Your task to perform on an android device: Check the weather Image 0: 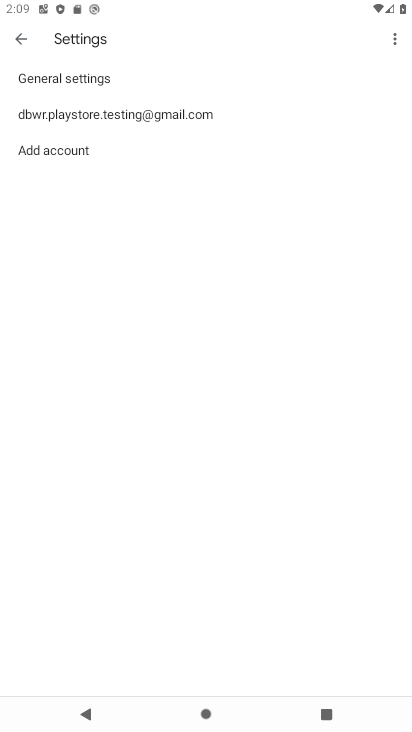
Step 0: press home button
Your task to perform on an android device: Check the weather Image 1: 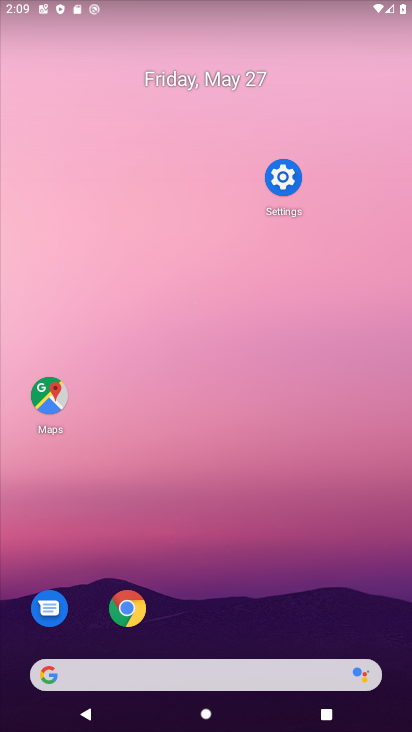
Step 1: click (202, 671)
Your task to perform on an android device: Check the weather Image 2: 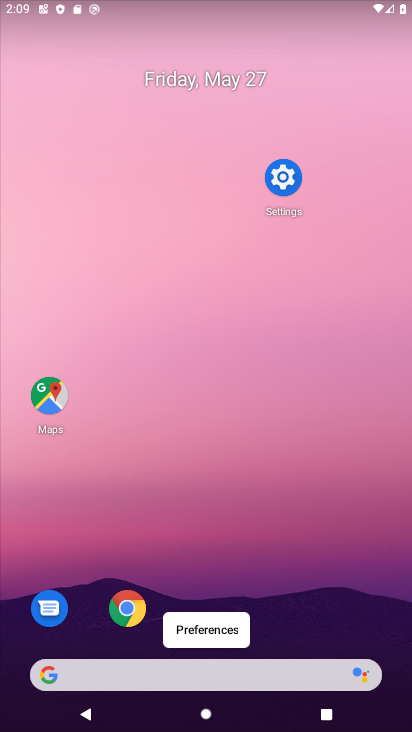
Step 2: click (158, 676)
Your task to perform on an android device: Check the weather Image 3: 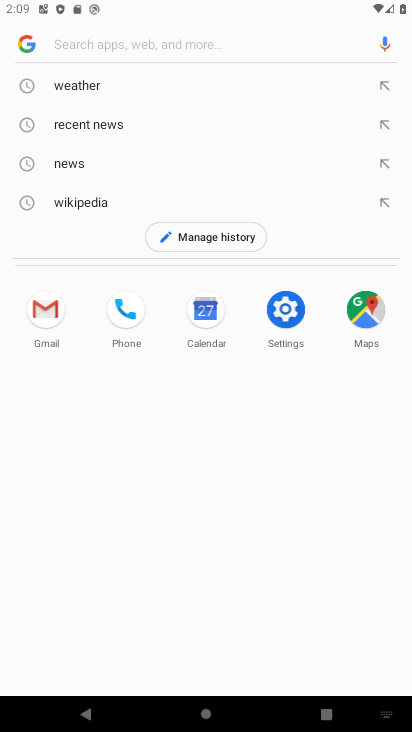
Step 3: click (69, 92)
Your task to perform on an android device: Check the weather Image 4: 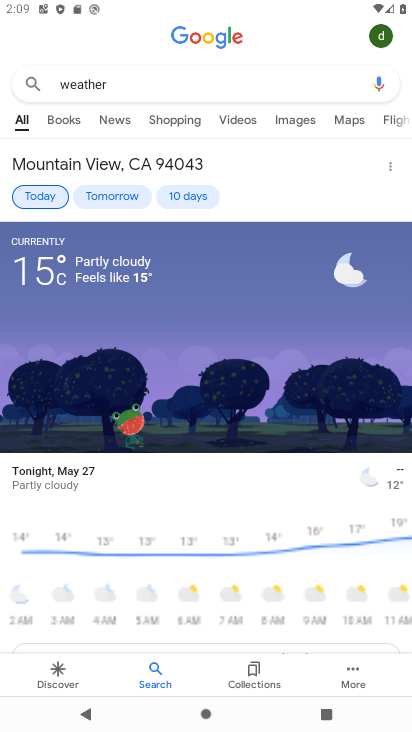
Step 4: task complete